Your task to perform on an android device: Go to network settings Image 0: 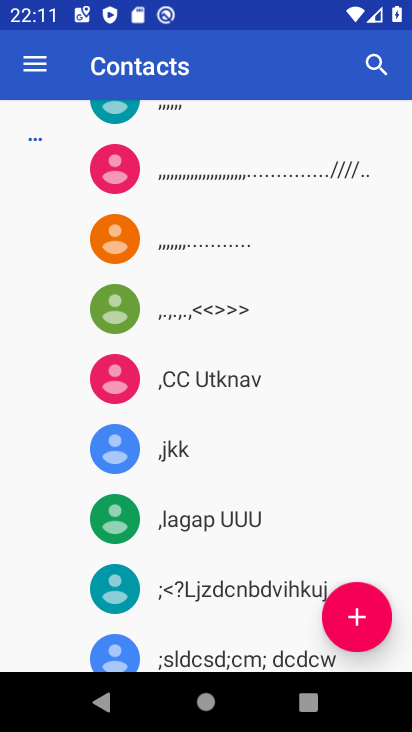
Step 0: press home button
Your task to perform on an android device: Go to network settings Image 1: 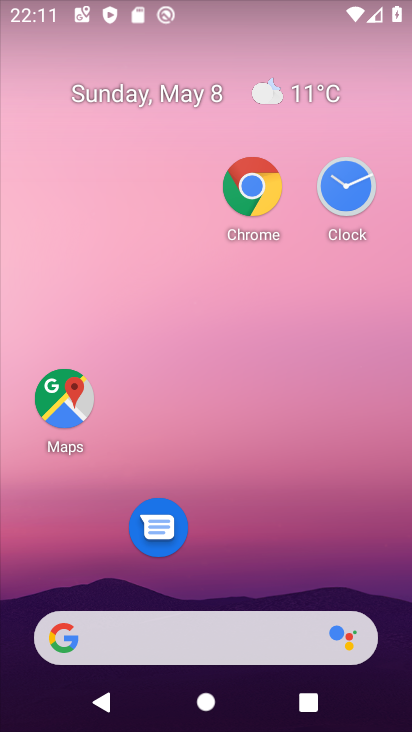
Step 1: drag from (306, 548) to (312, 116)
Your task to perform on an android device: Go to network settings Image 2: 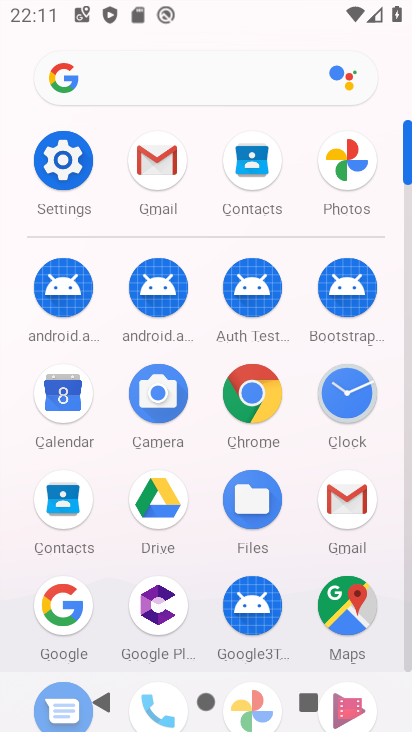
Step 2: click (59, 160)
Your task to perform on an android device: Go to network settings Image 3: 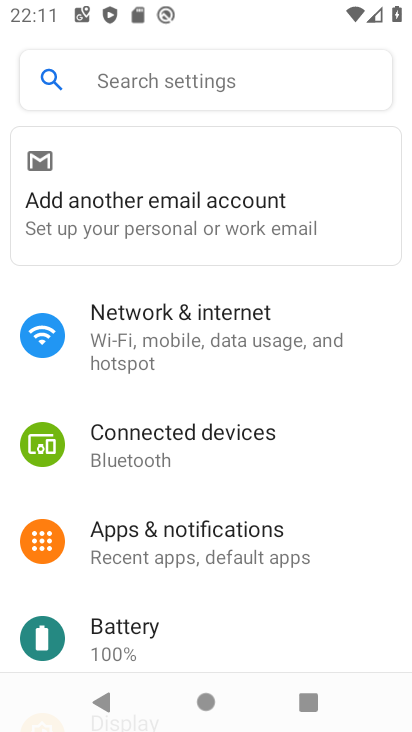
Step 3: click (140, 301)
Your task to perform on an android device: Go to network settings Image 4: 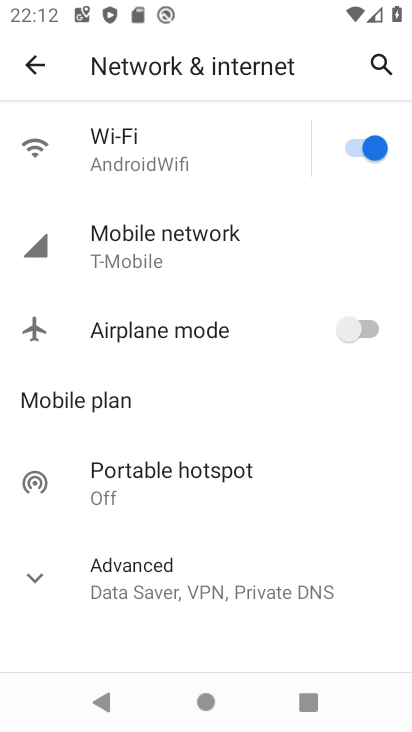
Step 4: task complete